Your task to perform on an android device: visit the assistant section in the google photos Image 0: 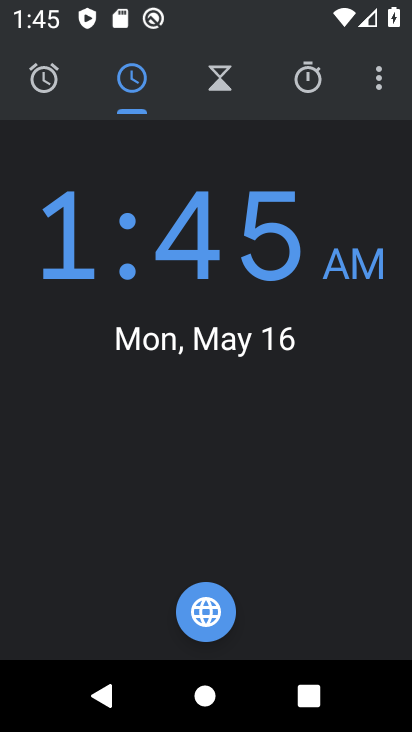
Step 0: press home button
Your task to perform on an android device: visit the assistant section in the google photos Image 1: 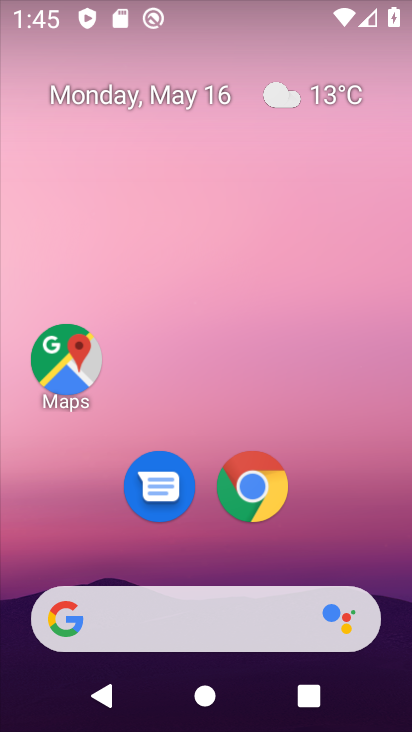
Step 1: drag from (361, 523) to (360, 68)
Your task to perform on an android device: visit the assistant section in the google photos Image 2: 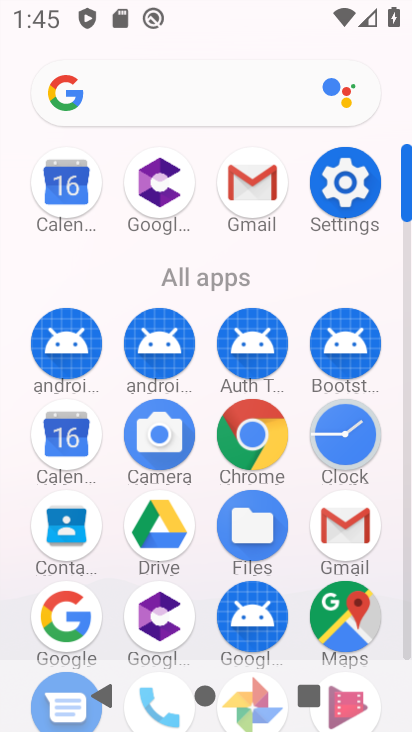
Step 2: drag from (395, 432) to (376, 155)
Your task to perform on an android device: visit the assistant section in the google photos Image 3: 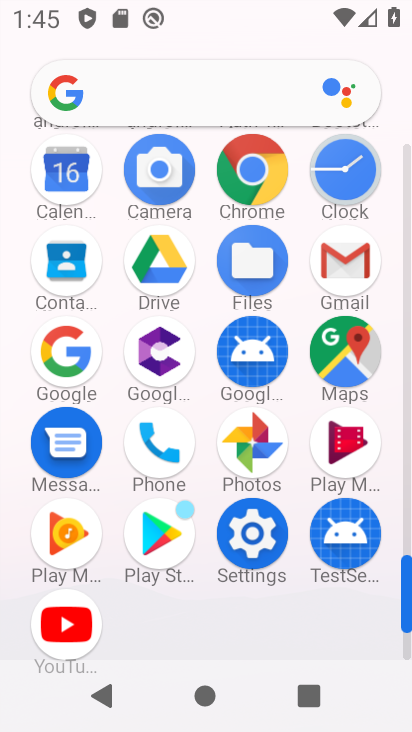
Step 3: click (255, 451)
Your task to perform on an android device: visit the assistant section in the google photos Image 4: 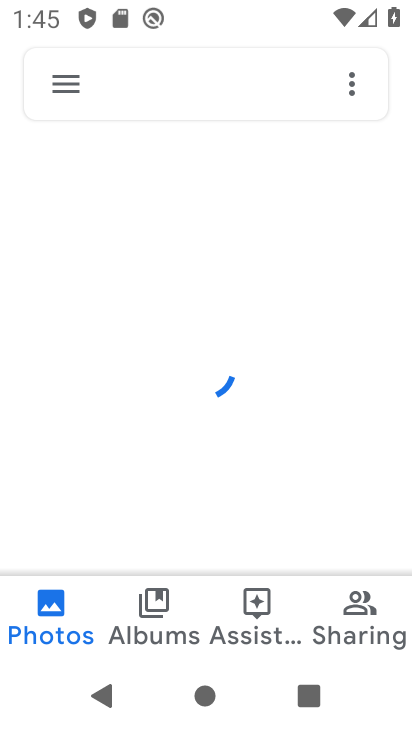
Step 4: click (252, 609)
Your task to perform on an android device: visit the assistant section in the google photos Image 5: 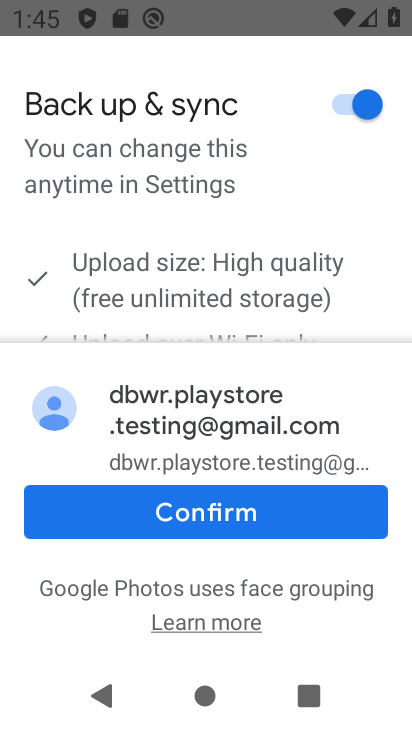
Step 5: click (227, 529)
Your task to perform on an android device: visit the assistant section in the google photos Image 6: 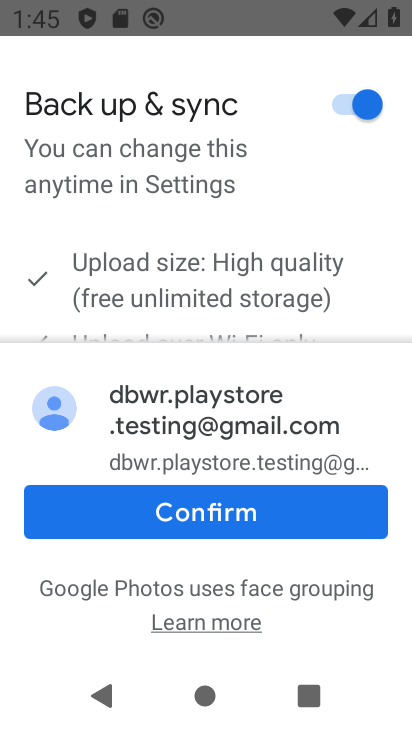
Step 6: click (223, 517)
Your task to perform on an android device: visit the assistant section in the google photos Image 7: 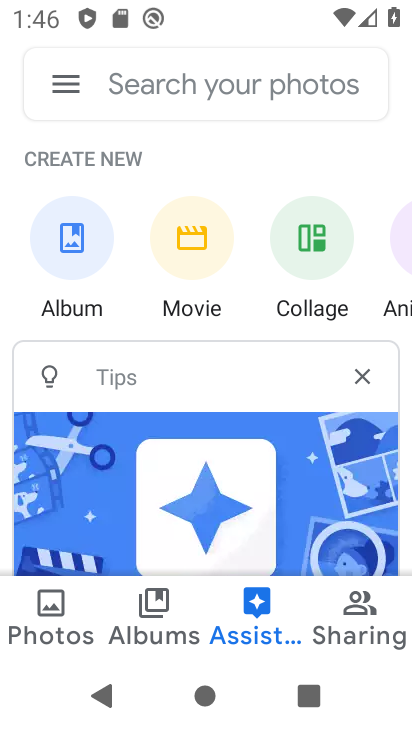
Step 7: task complete